Your task to perform on an android device: toggle notifications settings in the gmail app Image 0: 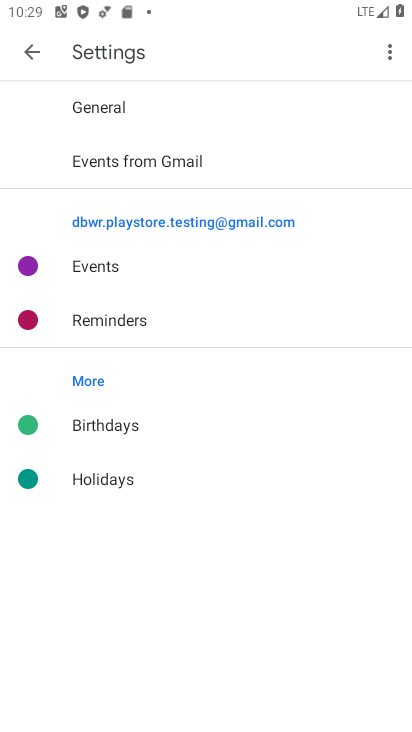
Step 0: press home button
Your task to perform on an android device: toggle notifications settings in the gmail app Image 1: 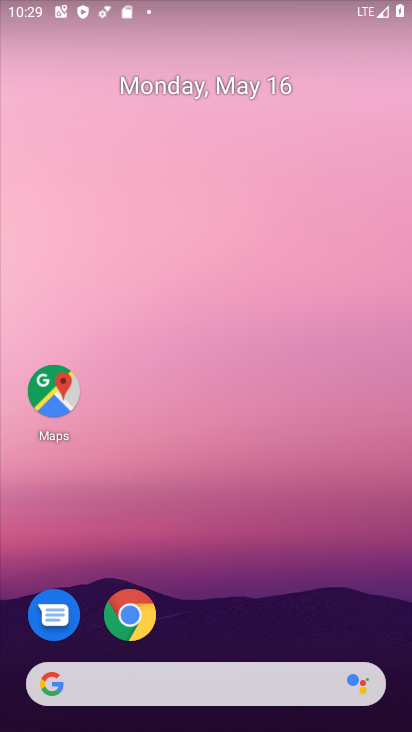
Step 1: drag from (236, 505) to (276, 287)
Your task to perform on an android device: toggle notifications settings in the gmail app Image 2: 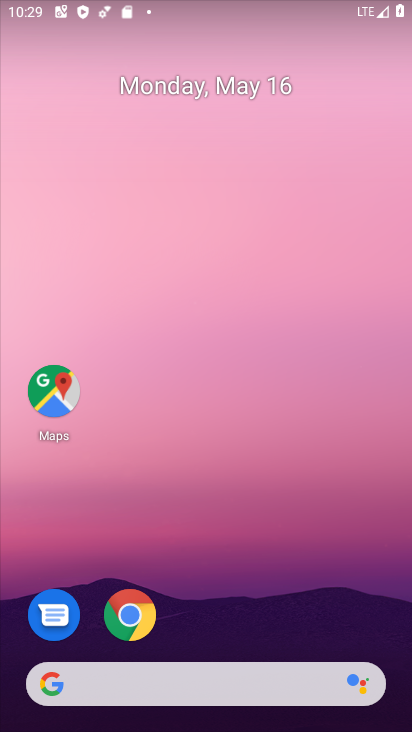
Step 2: drag from (263, 599) to (334, 90)
Your task to perform on an android device: toggle notifications settings in the gmail app Image 3: 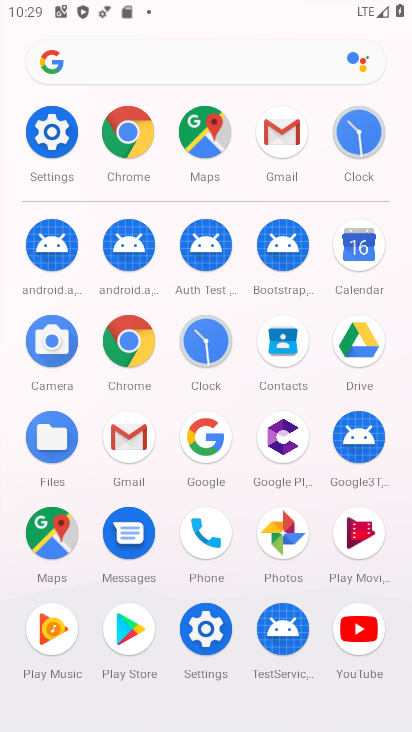
Step 3: click (131, 452)
Your task to perform on an android device: toggle notifications settings in the gmail app Image 4: 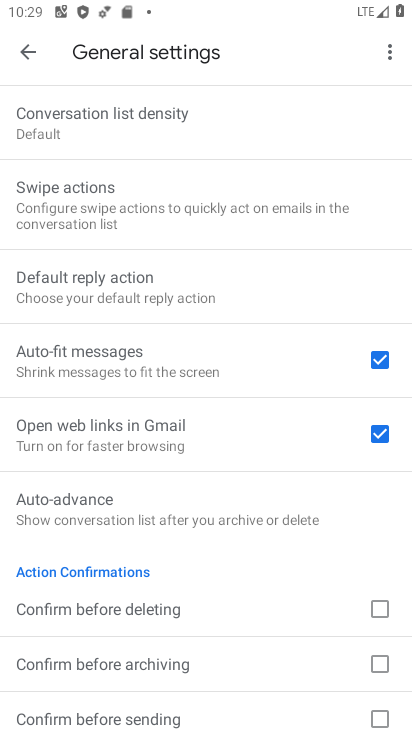
Step 4: drag from (120, 244) to (98, 638)
Your task to perform on an android device: toggle notifications settings in the gmail app Image 5: 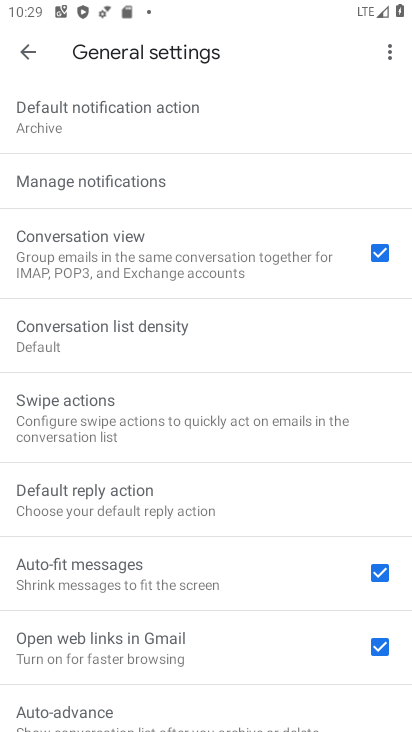
Step 5: click (157, 186)
Your task to perform on an android device: toggle notifications settings in the gmail app Image 6: 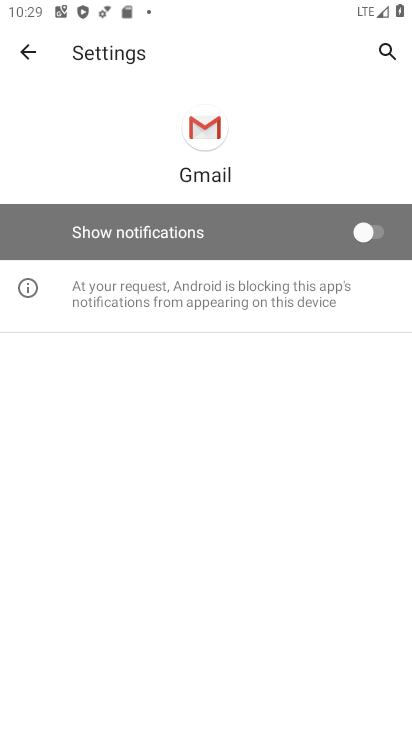
Step 6: click (376, 223)
Your task to perform on an android device: toggle notifications settings in the gmail app Image 7: 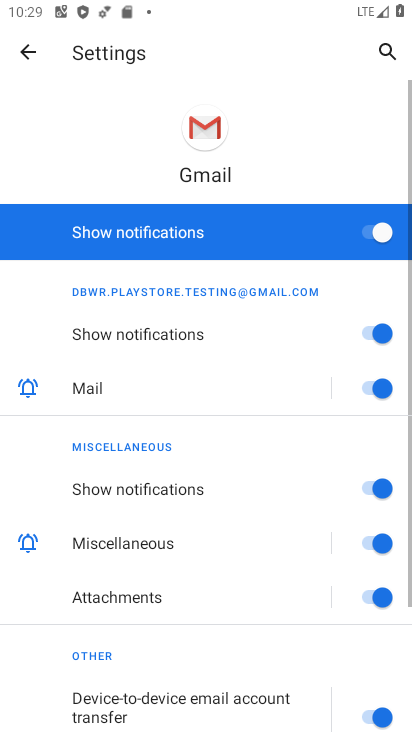
Step 7: task complete